Your task to perform on an android device: add a contact in the contacts app Image 0: 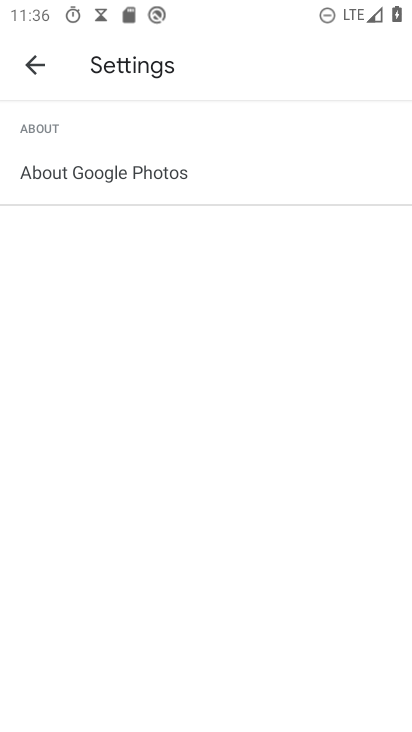
Step 0: press home button
Your task to perform on an android device: add a contact in the contacts app Image 1: 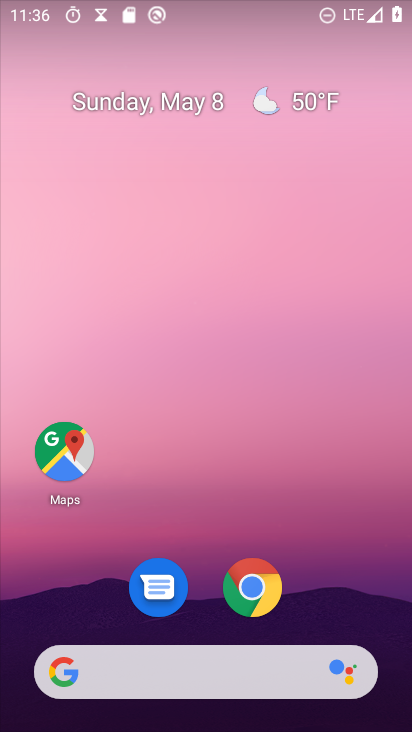
Step 1: drag from (208, 462) to (217, 165)
Your task to perform on an android device: add a contact in the contacts app Image 2: 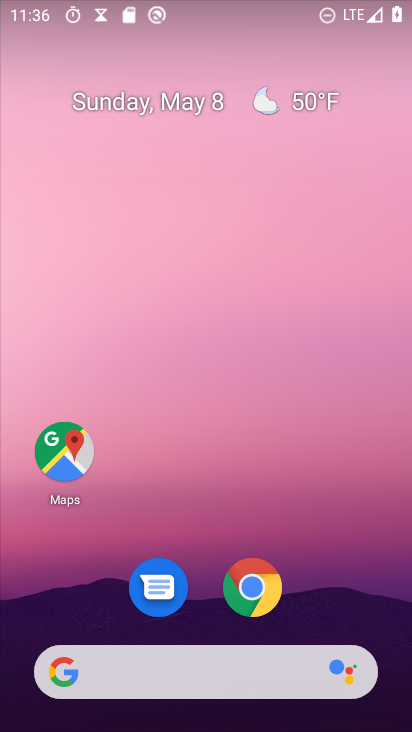
Step 2: drag from (324, 585) to (229, 95)
Your task to perform on an android device: add a contact in the contacts app Image 3: 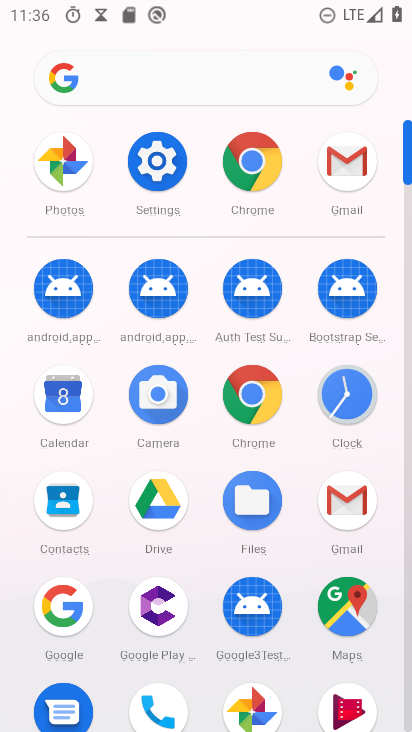
Step 3: click (72, 513)
Your task to perform on an android device: add a contact in the contacts app Image 4: 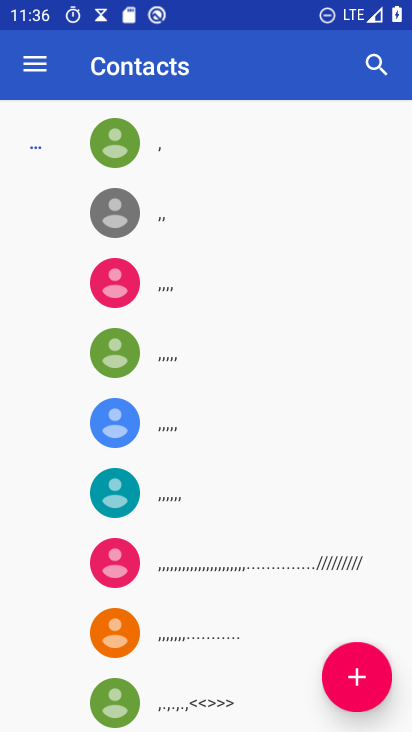
Step 4: click (367, 688)
Your task to perform on an android device: add a contact in the contacts app Image 5: 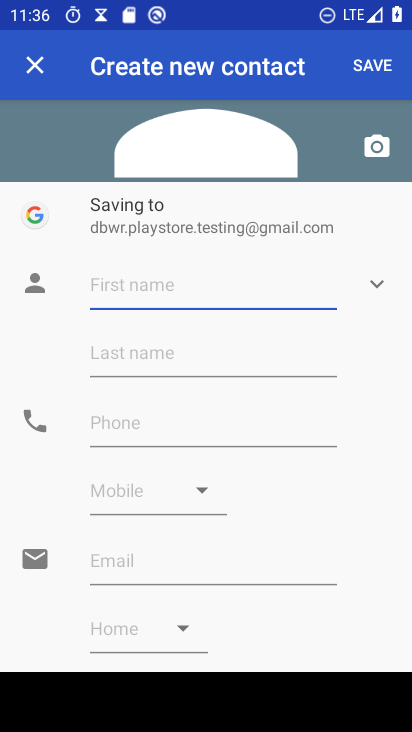
Step 5: click (156, 290)
Your task to perform on an android device: add a contact in the contacts app Image 6: 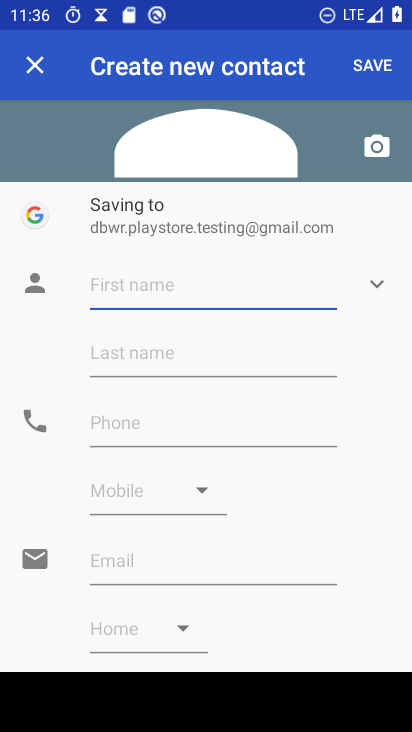
Step 6: type "leena"
Your task to perform on an android device: add a contact in the contacts app Image 7: 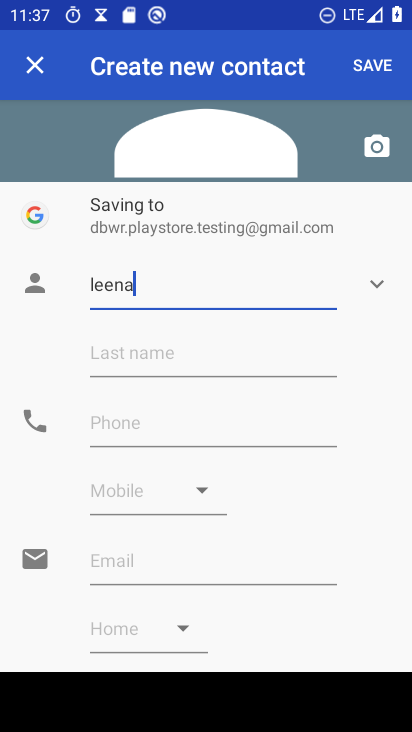
Step 7: click (114, 429)
Your task to perform on an android device: add a contact in the contacts app Image 8: 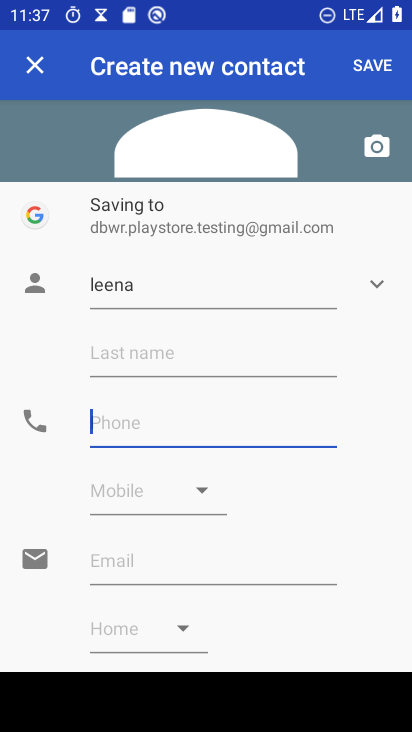
Step 8: type "6565335226"
Your task to perform on an android device: add a contact in the contacts app Image 9: 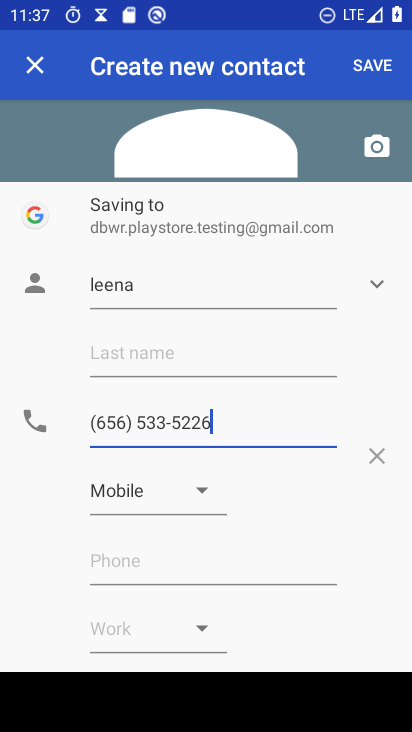
Step 9: click (360, 62)
Your task to perform on an android device: add a contact in the contacts app Image 10: 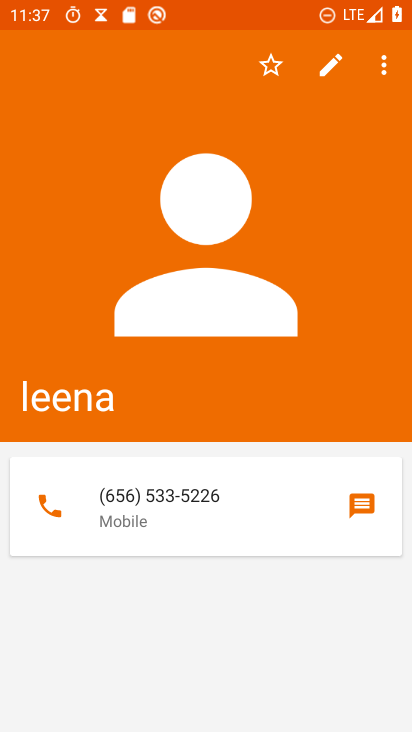
Step 10: task complete